Your task to perform on an android device: add a contact in the contacts app Image 0: 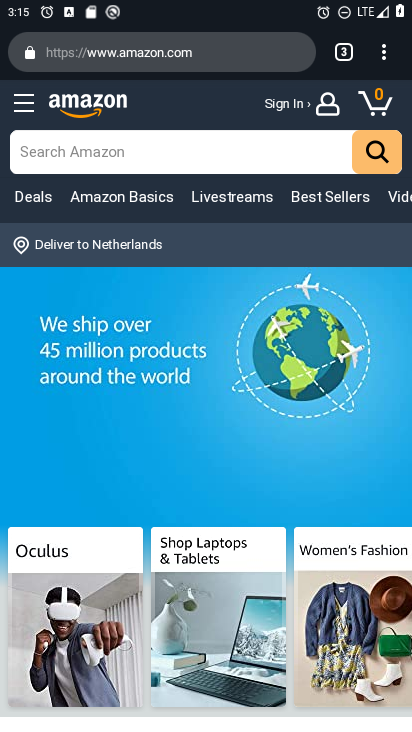
Step 0: press home button
Your task to perform on an android device: add a contact in the contacts app Image 1: 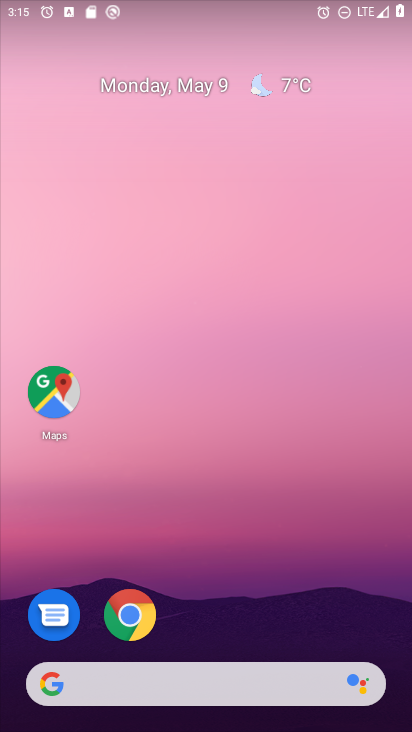
Step 1: drag from (368, 623) to (328, 15)
Your task to perform on an android device: add a contact in the contacts app Image 2: 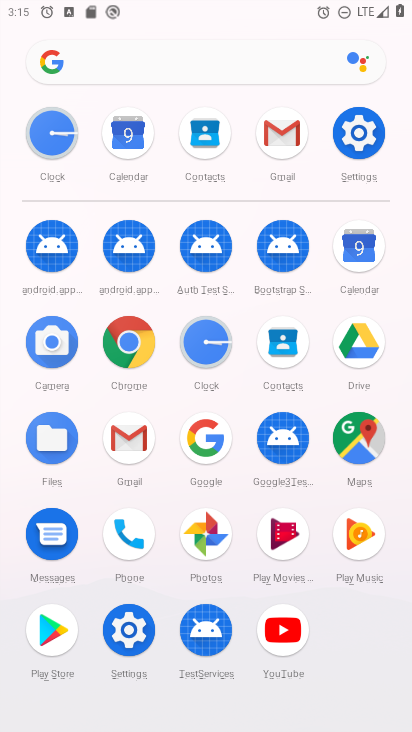
Step 2: click (283, 345)
Your task to perform on an android device: add a contact in the contacts app Image 3: 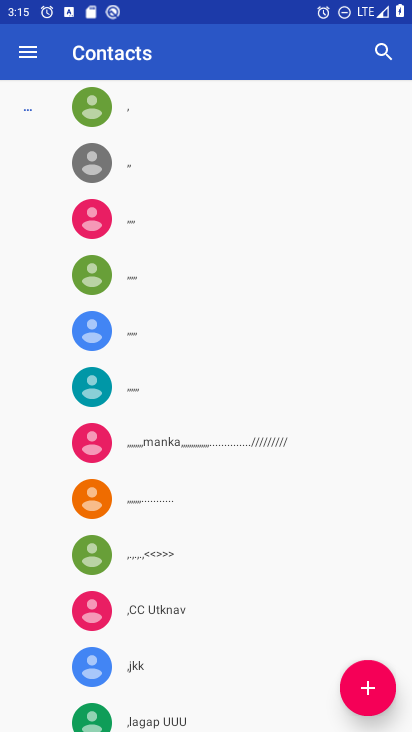
Step 3: click (367, 686)
Your task to perform on an android device: add a contact in the contacts app Image 4: 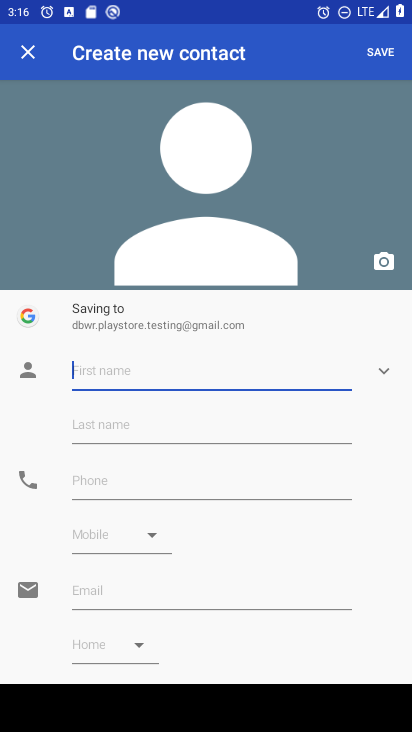
Step 4: type "aghhfj"
Your task to perform on an android device: add a contact in the contacts app Image 5: 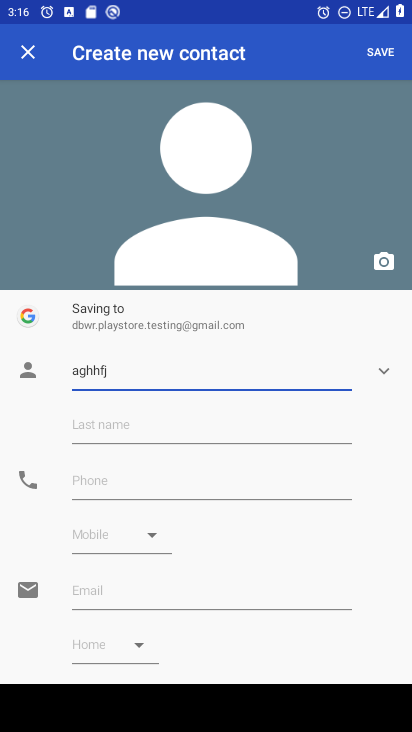
Step 5: click (84, 486)
Your task to perform on an android device: add a contact in the contacts app Image 6: 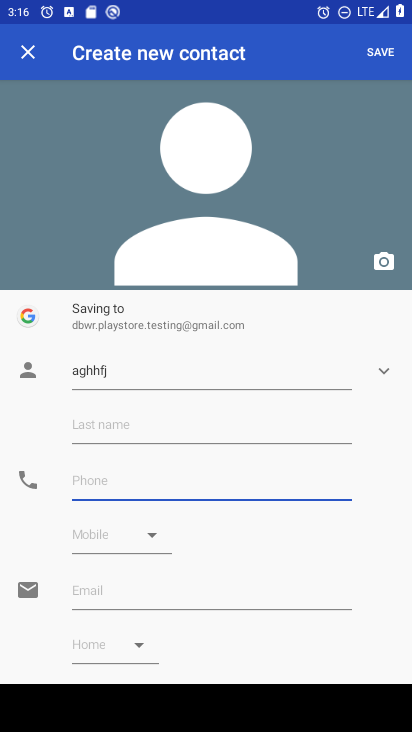
Step 6: type "9556787979"
Your task to perform on an android device: add a contact in the contacts app Image 7: 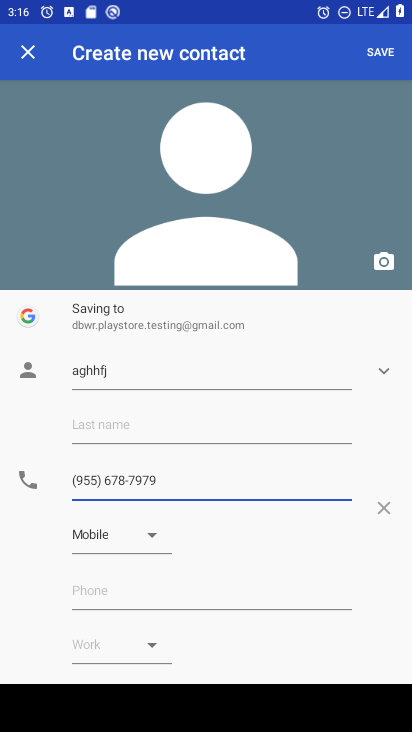
Step 7: click (153, 535)
Your task to perform on an android device: add a contact in the contacts app Image 8: 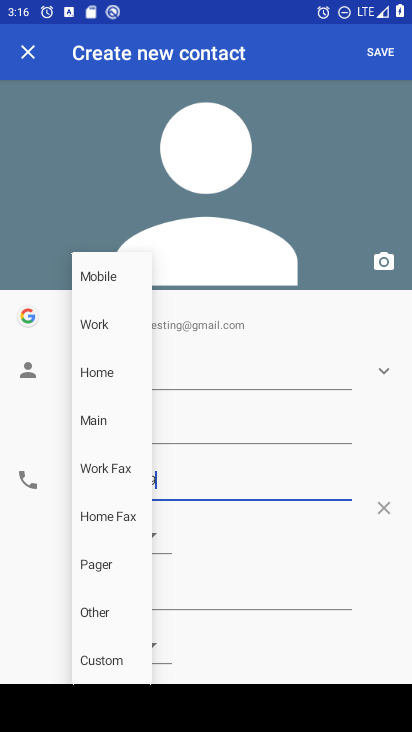
Step 8: click (93, 362)
Your task to perform on an android device: add a contact in the contacts app Image 9: 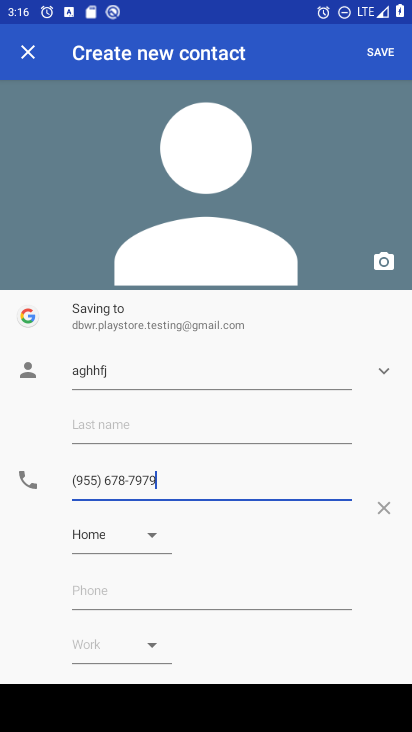
Step 9: click (378, 55)
Your task to perform on an android device: add a contact in the contacts app Image 10: 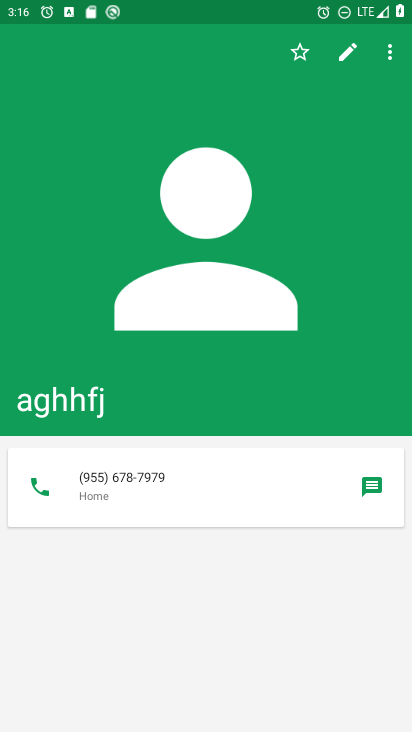
Step 10: task complete